Your task to perform on an android device: Show me recent news Image 0: 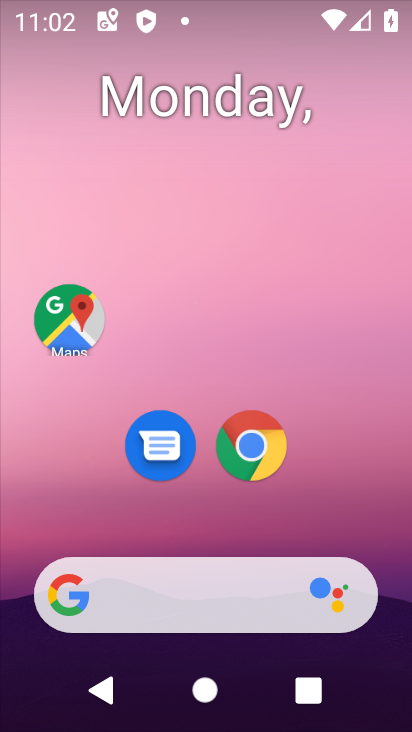
Step 0: click (162, 593)
Your task to perform on an android device: Show me recent news Image 1: 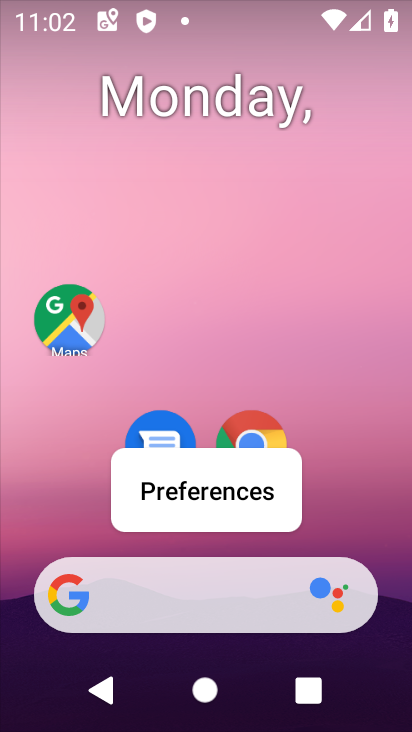
Step 1: click (170, 592)
Your task to perform on an android device: Show me recent news Image 2: 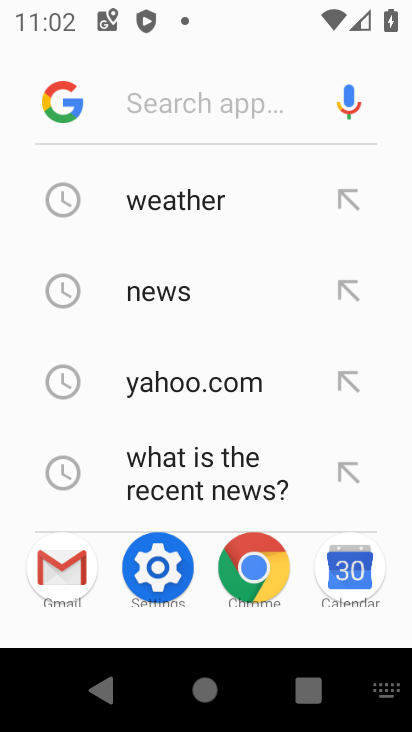
Step 2: click (155, 286)
Your task to perform on an android device: Show me recent news Image 3: 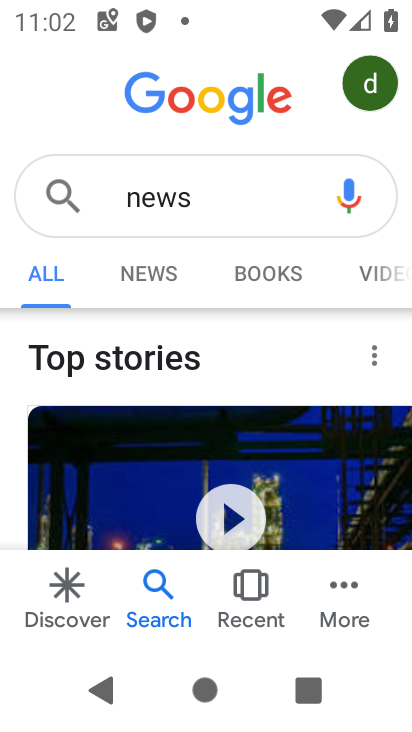
Step 3: task complete